Your task to perform on an android device: Open the calendar app, open the side menu, and click the "Day" option Image 0: 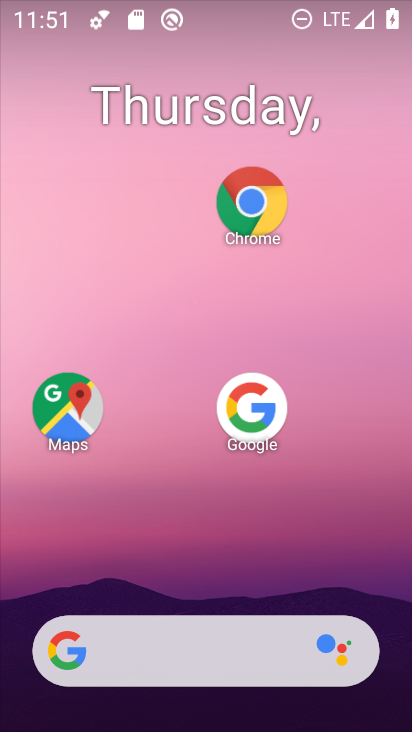
Step 0: drag from (245, 571) to (290, 11)
Your task to perform on an android device: Open the calendar app, open the side menu, and click the "Day" option Image 1: 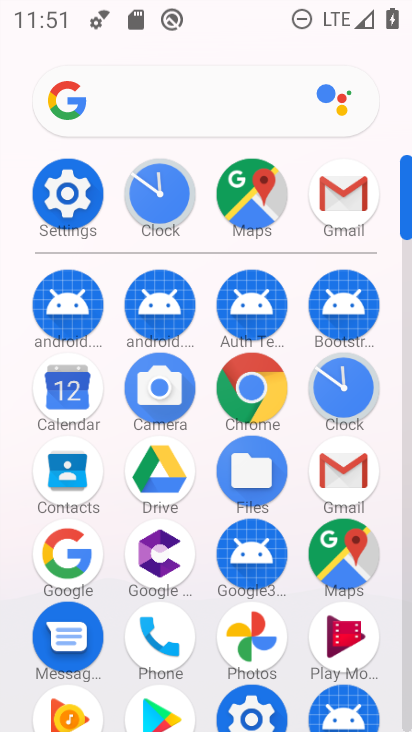
Step 1: click (63, 402)
Your task to perform on an android device: Open the calendar app, open the side menu, and click the "Day" option Image 2: 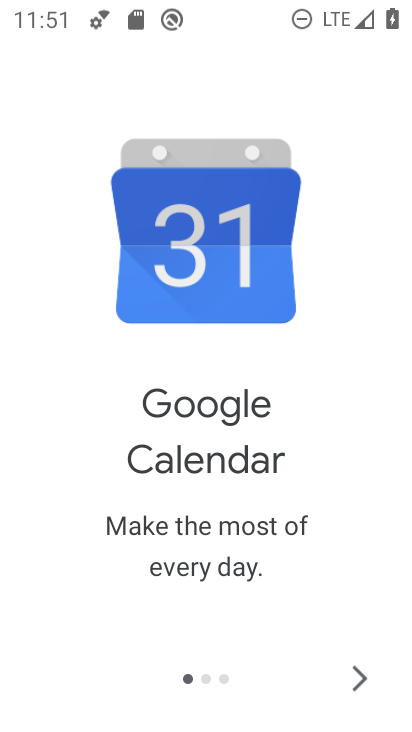
Step 2: click (352, 680)
Your task to perform on an android device: Open the calendar app, open the side menu, and click the "Day" option Image 3: 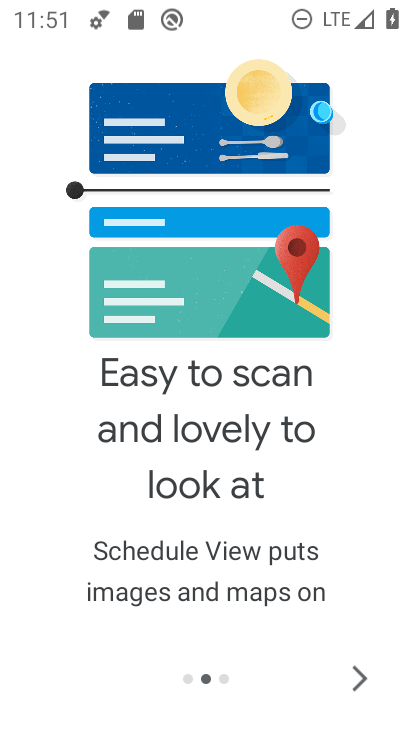
Step 3: click (352, 680)
Your task to perform on an android device: Open the calendar app, open the side menu, and click the "Day" option Image 4: 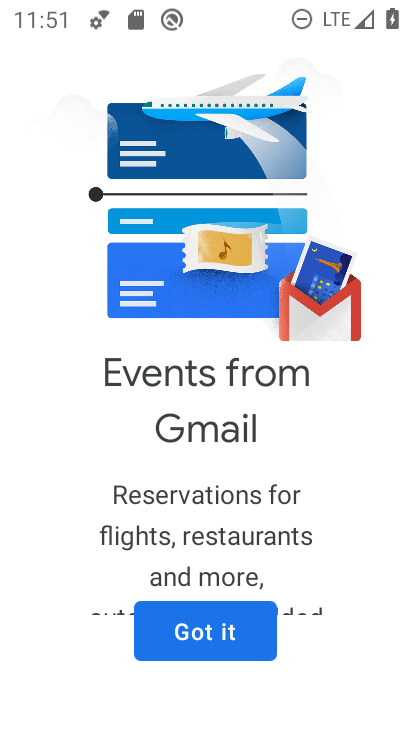
Step 4: click (241, 644)
Your task to perform on an android device: Open the calendar app, open the side menu, and click the "Day" option Image 5: 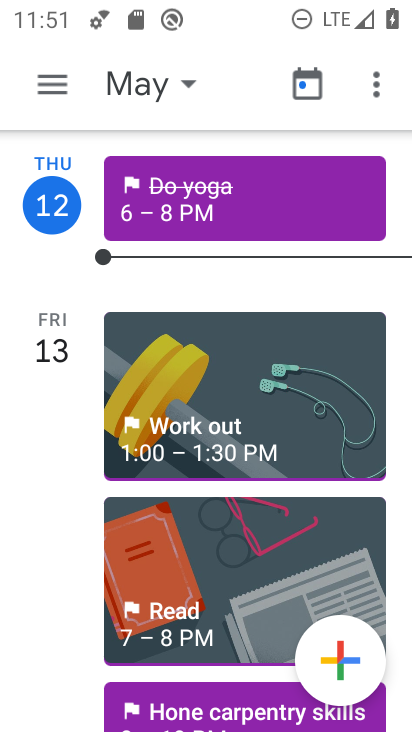
Step 5: click (68, 67)
Your task to perform on an android device: Open the calendar app, open the side menu, and click the "Day" option Image 6: 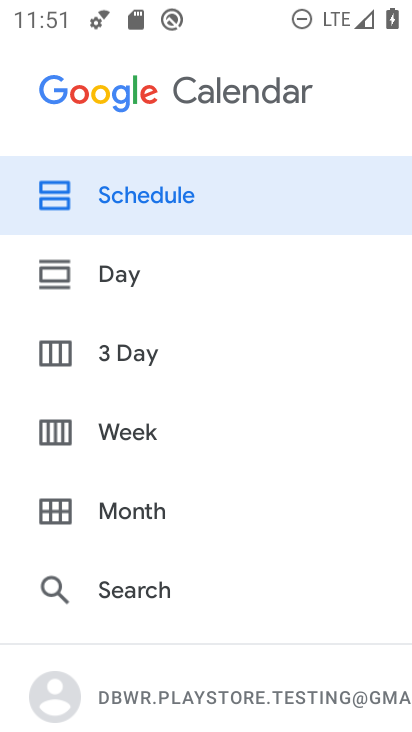
Step 6: click (119, 262)
Your task to perform on an android device: Open the calendar app, open the side menu, and click the "Day" option Image 7: 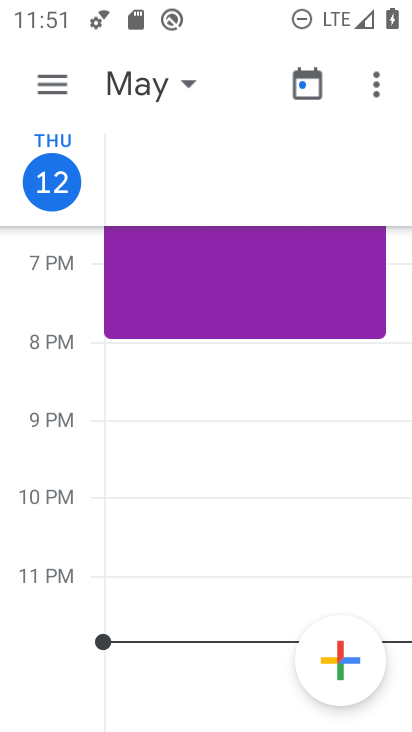
Step 7: task complete